Your task to perform on an android device: Go to display settings Image 0: 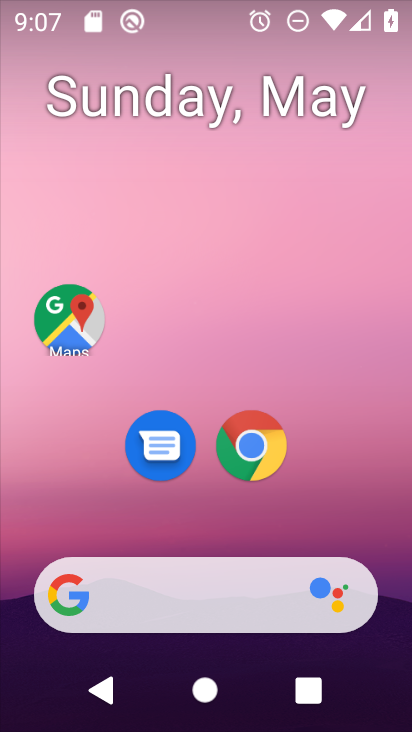
Step 0: drag from (213, 612) to (209, 158)
Your task to perform on an android device: Go to display settings Image 1: 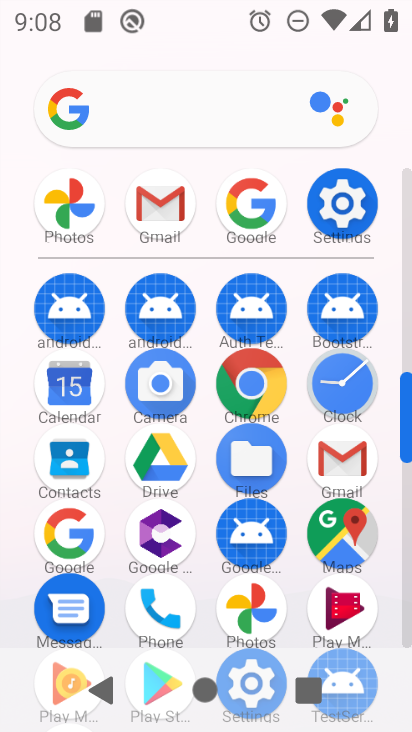
Step 1: click (339, 207)
Your task to perform on an android device: Go to display settings Image 2: 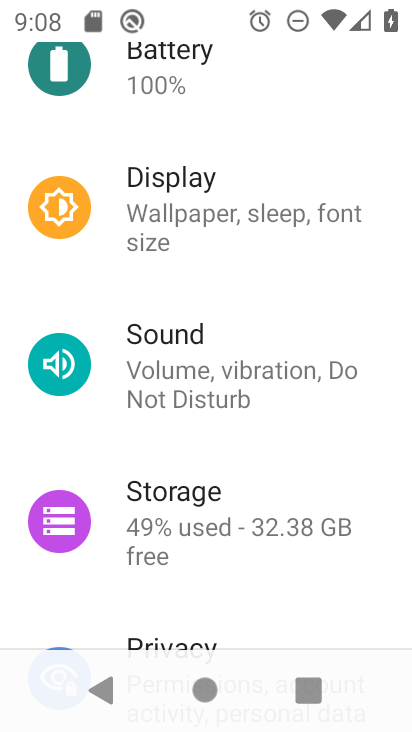
Step 2: drag from (226, 290) to (193, 467)
Your task to perform on an android device: Go to display settings Image 3: 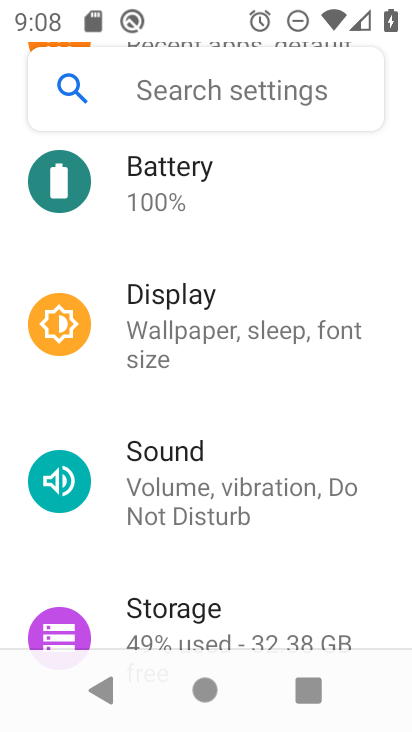
Step 3: click (239, 327)
Your task to perform on an android device: Go to display settings Image 4: 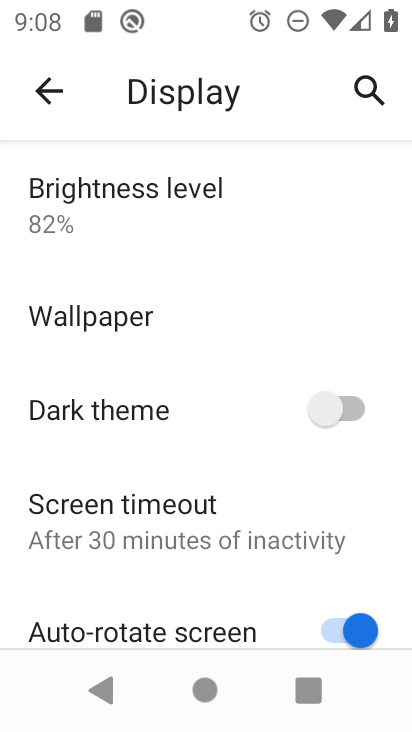
Step 4: task complete